Your task to perform on an android device: toggle data saver in the chrome app Image 0: 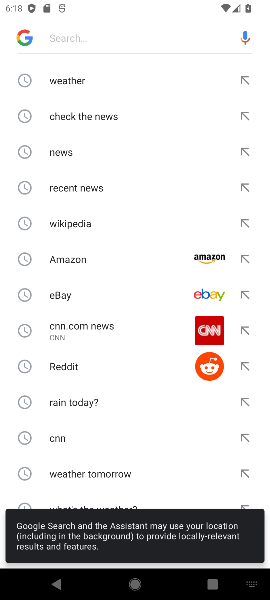
Step 0: press home button
Your task to perform on an android device: toggle data saver in the chrome app Image 1: 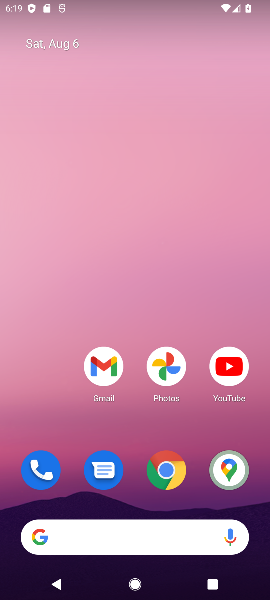
Step 1: drag from (127, 483) to (136, 39)
Your task to perform on an android device: toggle data saver in the chrome app Image 2: 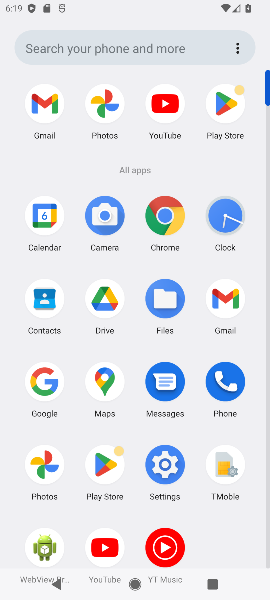
Step 2: click (168, 212)
Your task to perform on an android device: toggle data saver in the chrome app Image 3: 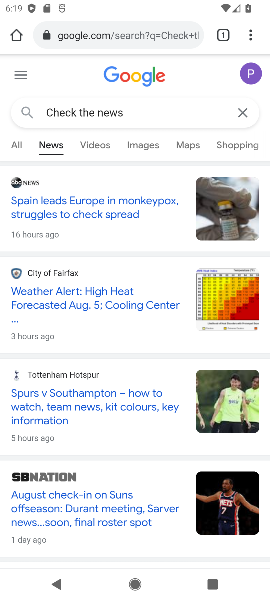
Step 3: click (151, 29)
Your task to perform on an android device: toggle data saver in the chrome app Image 4: 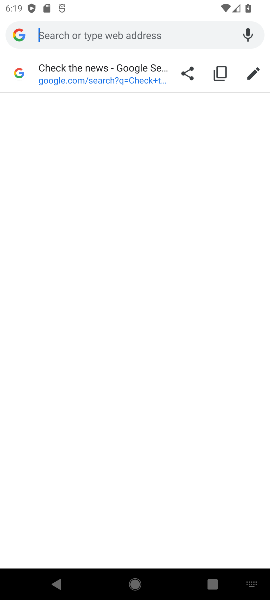
Step 4: press back button
Your task to perform on an android device: toggle data saver in the chrome app Image 5: 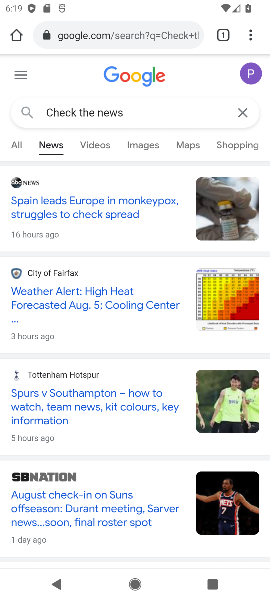
Step 5: drag from (254, 28) to (153, 414)
Your task to perform on an android device: toggle data saver in the chrome app Image 6: 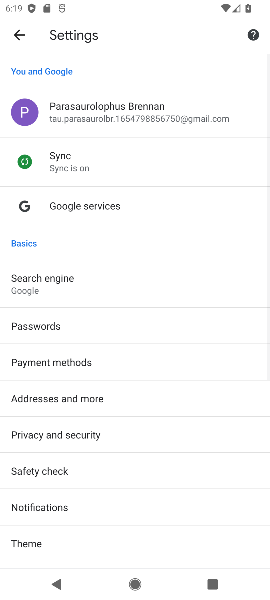
Step 6: drag from (104, 532) to (146, 176)
Your task to perform on an android device: toggle data saver in the chrome app Image 7: 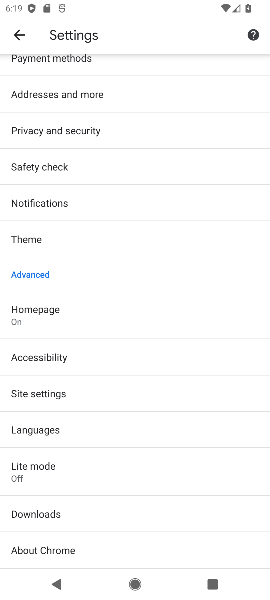
Step 7: click (41, 463)
Your task to perform on an android device: toggle data saver in the chrome app Image 8: 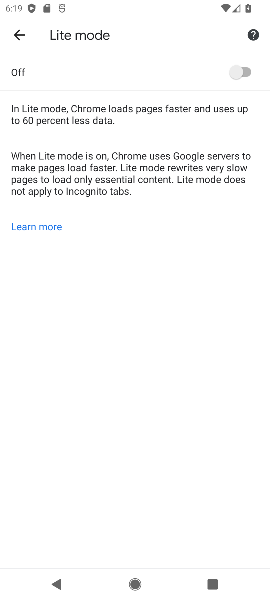
Step 8: click (185, 63)
Your task to perform on an android device: toggle data saver in the chrome app Image 9: 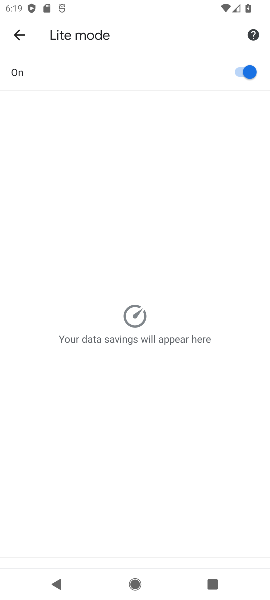
Step 9: task complete